Your task to perform on an android device: Turn off the flashlight Image 0: 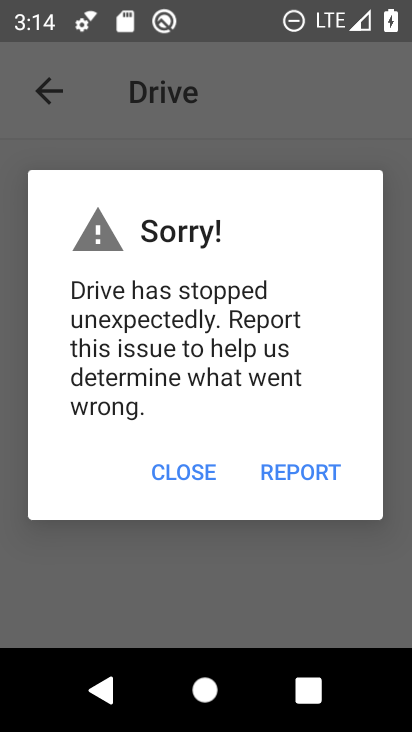
Step 0: press home button
Your task to perform on an android device: Turn off the flashlight Image 1: 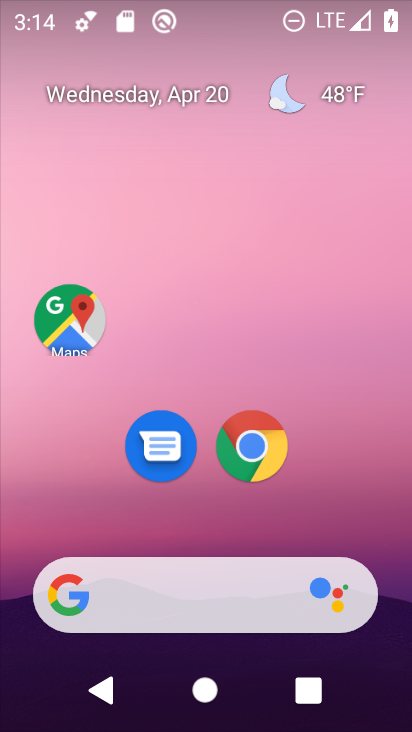
Step 1: drag from (302, 529) to (411, 26)
Your task to perform on an android device: Turn off the flashlight Image 2: 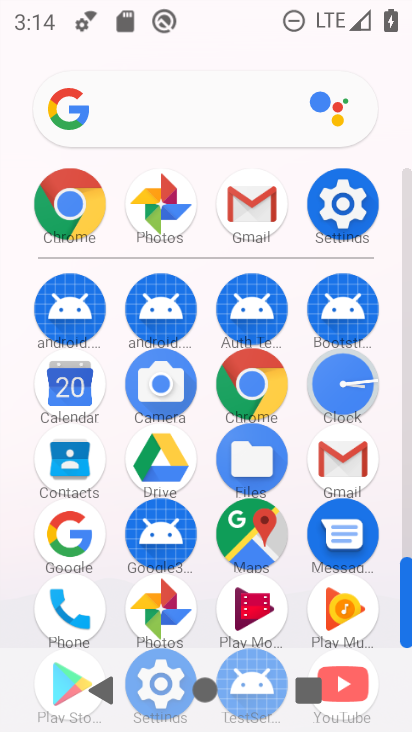
Step 2: click (345, 203)
Your task to perform on an android device: Turn off the flashlight Image 3: 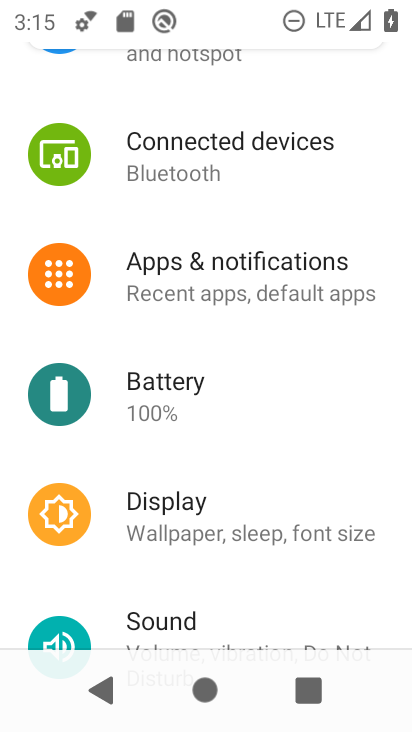
Step 3: drag from (219, 421) to (217, 249)
Your task to perform on an android device: Turn off the flashlight Image 4: 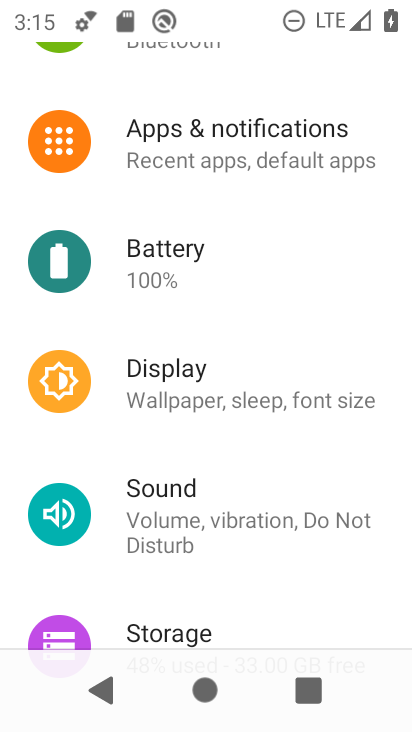
Step 4: drag from (235, 357) to (259, 274)
Your task to perform on an android device: Turn off the flashlight Image 5: 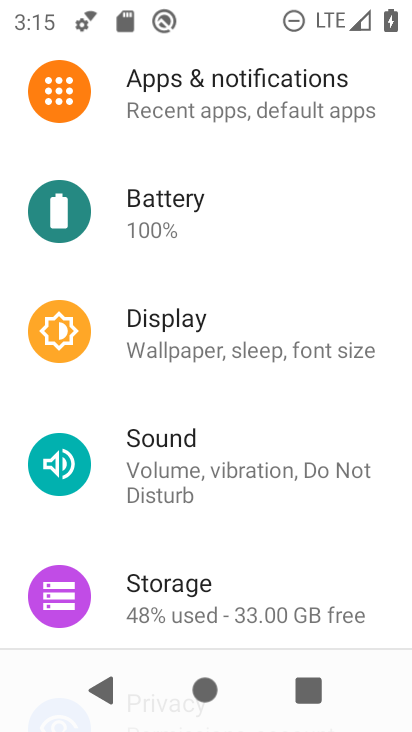
Step 5: drag from (236, 393) to (276, 308)
Your task to perform on an android device: Turn off the flashlight Image 6: 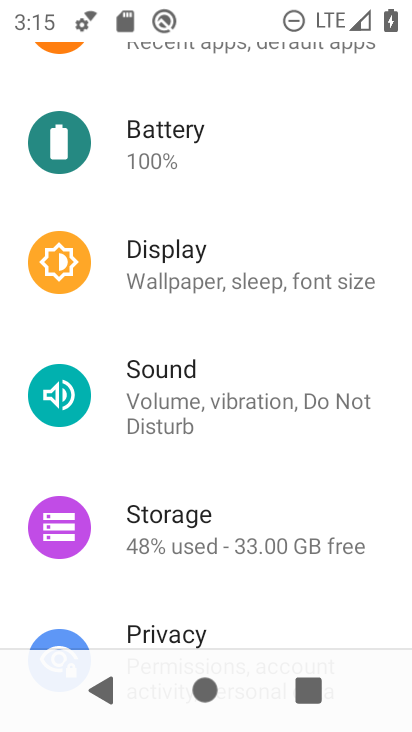
Step 6: drag from (250, 349) to (330, 233)
Your task to perform on an android device: Turn off the flashlight Image 7: 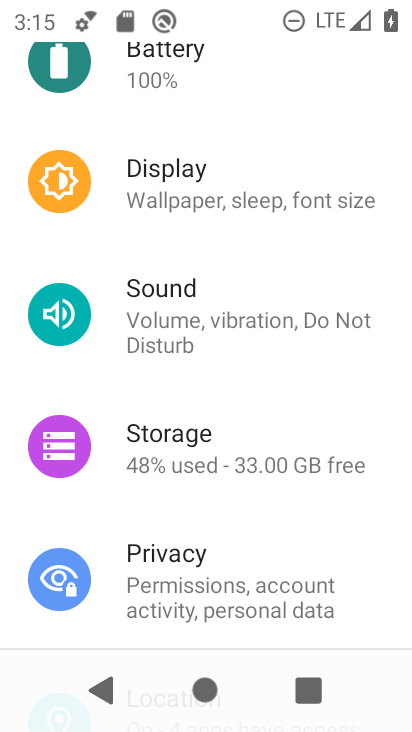
Step 7: drag from (244, 400) to (304, 274)
Your task to perform on an android device: Turn off the flashlight Image 8: 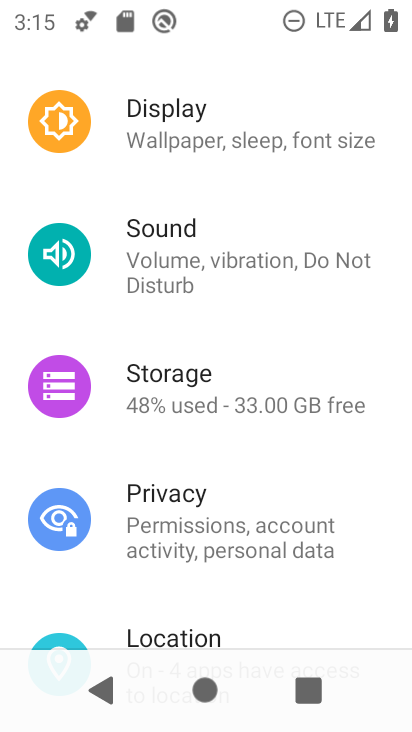
Step 8: drag from (235, 459) to (300, 315)
Your task to perform on an android device: Turn off the flashlight Image 9: 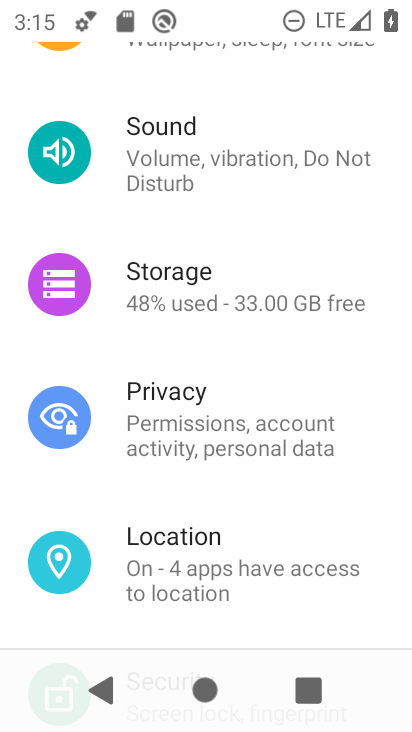
Step 9: drag from (201, 503) to (259, 362)
Your task to perform on an android device: Turn off the flashlight Image 10: 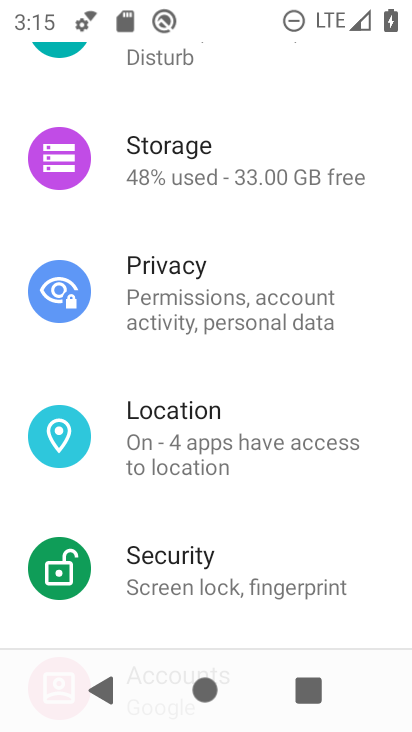
Step 10: drag from (241, 518) to (277, 378)
Your task to perform on an android device: Turn off the flashlight Image 11: 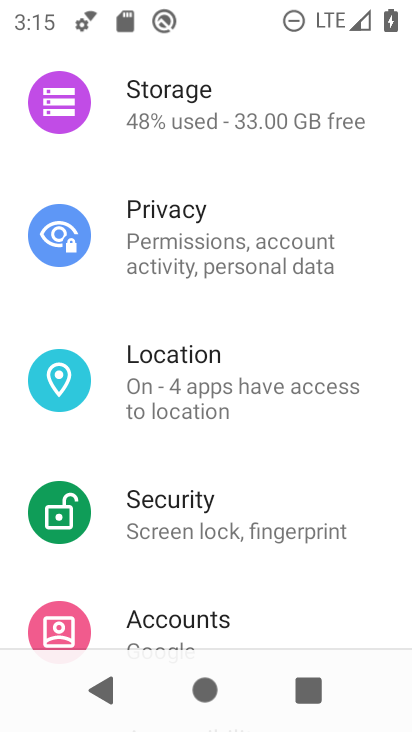
Step 11: drag from (226, 456) to (271, 344)
Your task to perform on an android device: Turn off the flashlight Image 12: 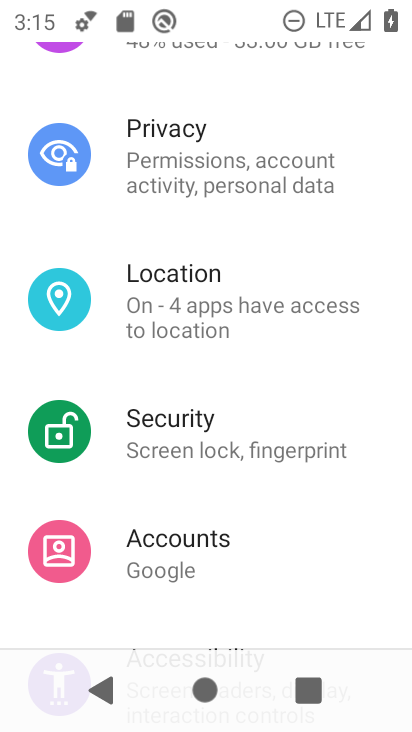
Step 12: drag from (207, 495) to (262, 367)
Your task to perform on an android device: Turn off the flashlight Image 13: 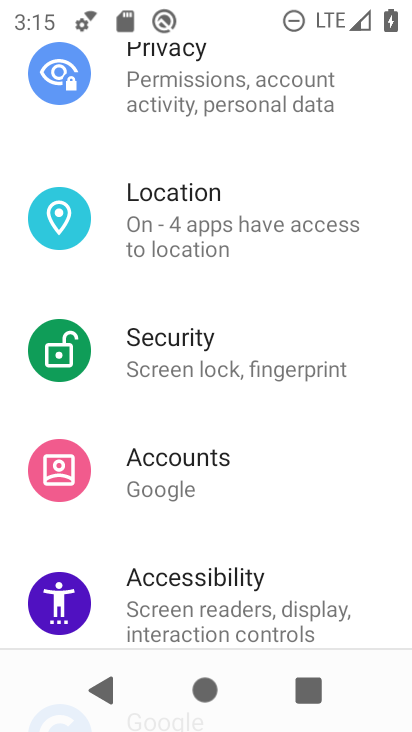
Step 13: drag from (197, 538) to (256, 391)
Your task to perform on an android device: Turn off the flashlight Image 14: 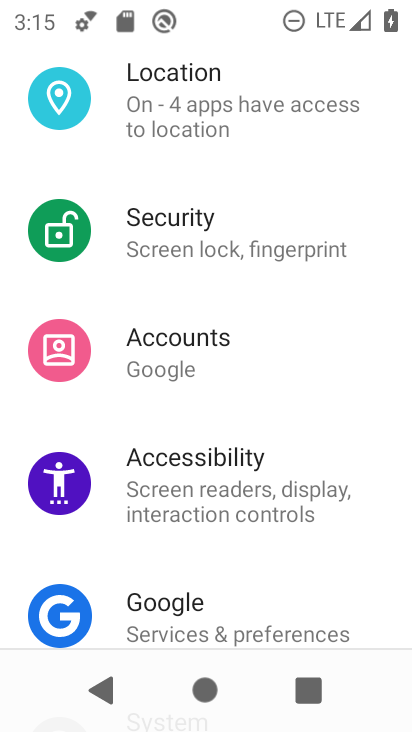
Step 14: click (199, 460)
Your task to perform on an android device: Turn off the flashlight Image 15: 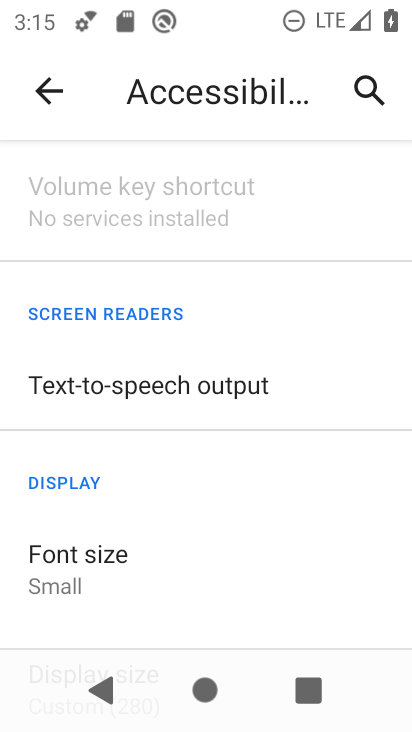
Step 15: task complete